Your task to perform on an android device: Go to Reddit.com Image 0: 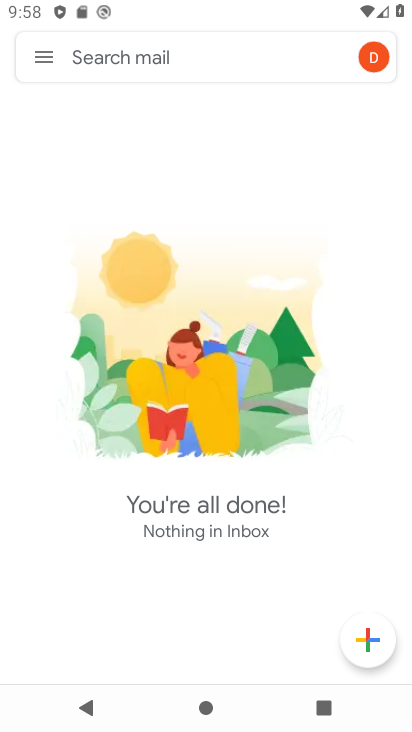
Step 0: press home button
Your task to perform on an android device: Go to Reddit.com Image 1: 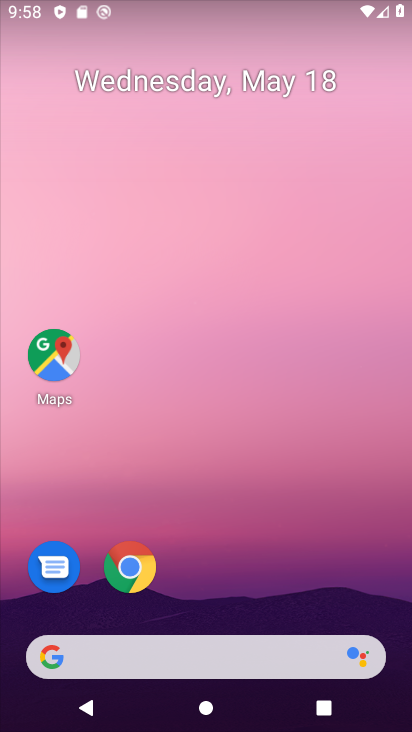
Step 1: drag from (221, 558) to (245, 142)
Your task to perform on an android device: Go to Reddit.com Image 2: 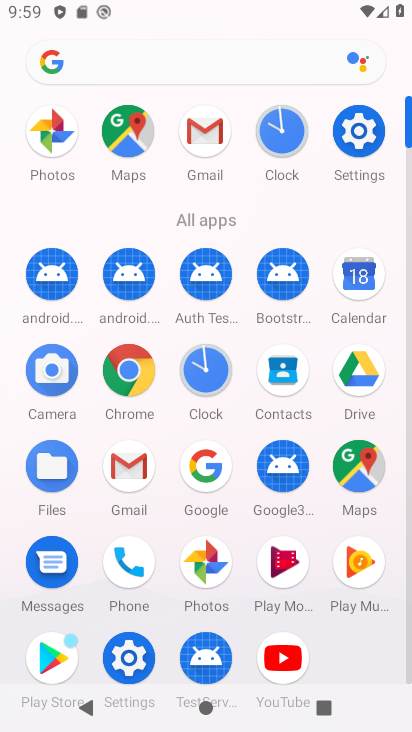
Step 2: click (216, 477)
Your task to perform on an android device: Go to Reddit.com Image 3: 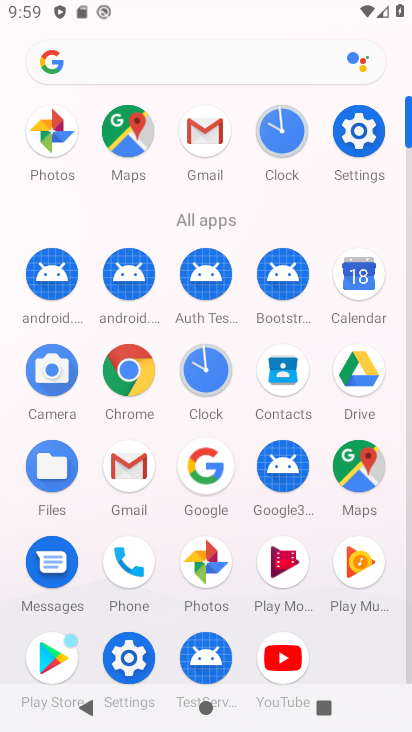
Step 3: click (210, 484)
Your task to perform on an android device: Go to Reddit.com Image 4: 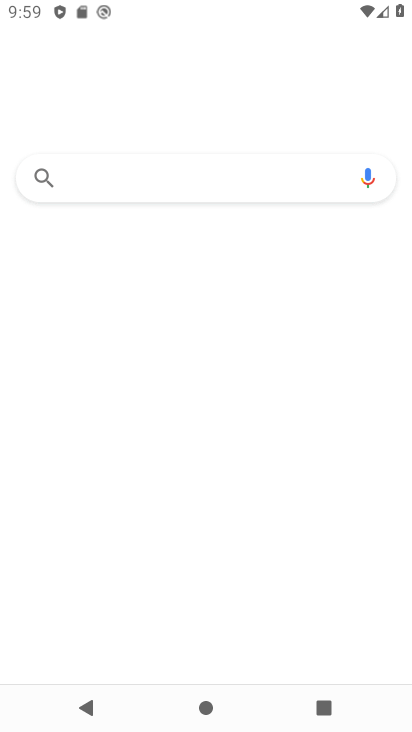
Step 4: click (100, 172)
Your task to perform on an android device: Go to Reddit.com Image 5: 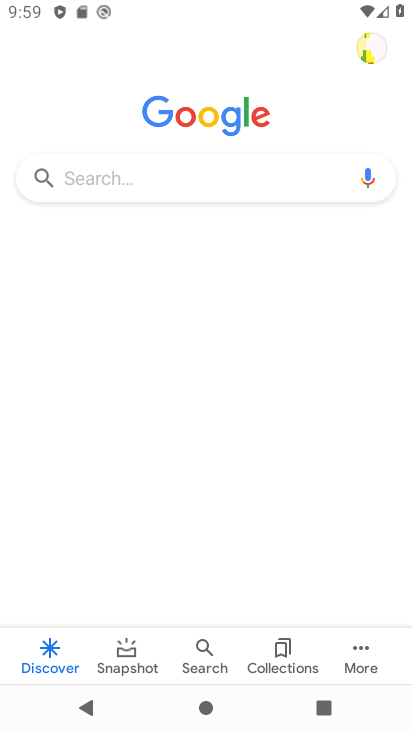
Step 5: click (123, 179)
Your task to perform on an android device: Go to Reddit.com Image 6: 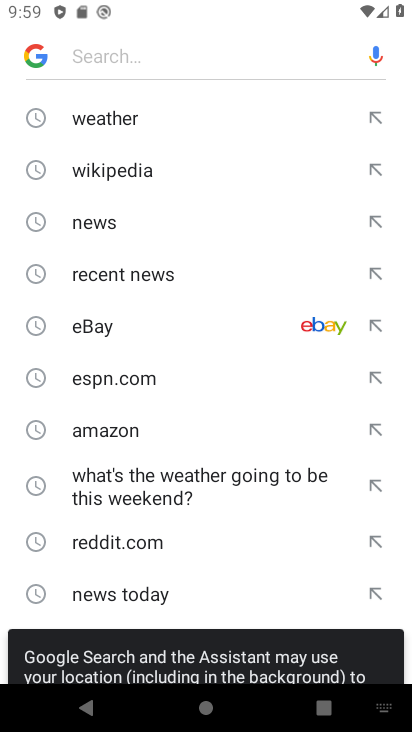
Step 6: drag from (140, 599) to (155, 463)
Your task to perform on an android device: Go to Reddit.com Image 7: 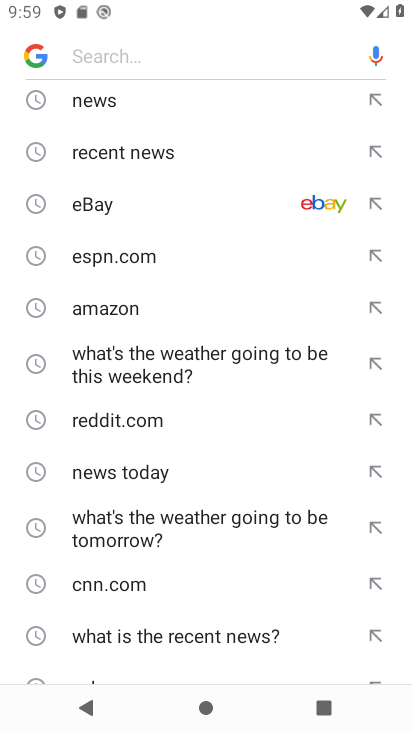
Step 7: click (120, 411)
Your task to perform on an android device: Go to Reddit.com Image 8: 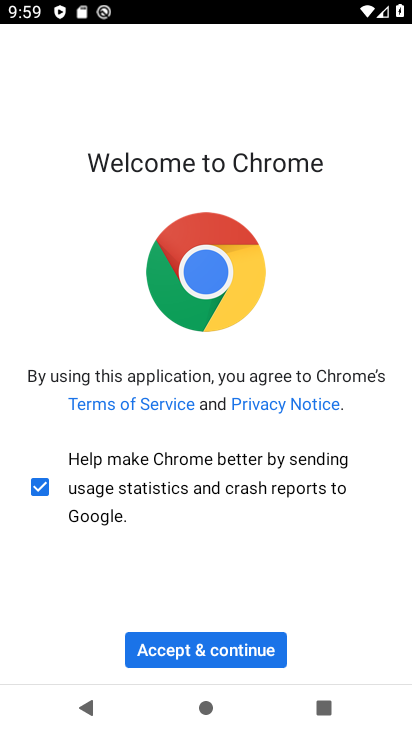
Step 8: click (214, 643)
Your task to perform on an android device: Go to Reddit.com Image 9: 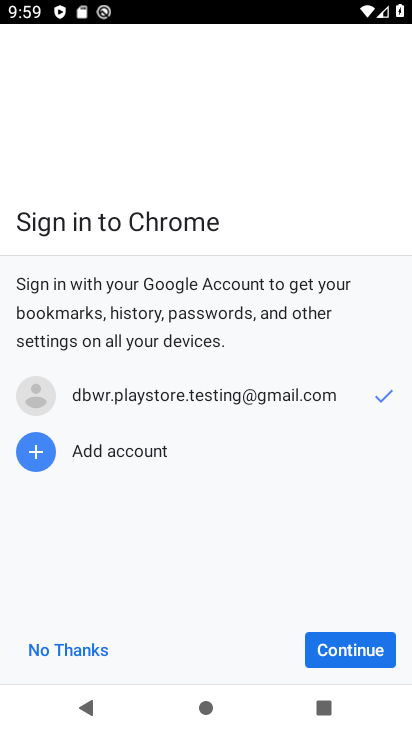
Step 9: click (336, 655)
Your task to perform on an android device: Go to Reddit.com Image 10: 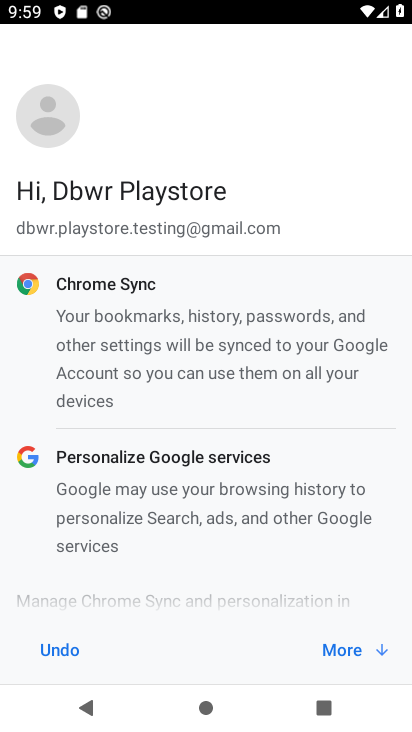
Step 10: click (336, 655)
Your task to perform on an android device: Go to Reddit.com Image 11: 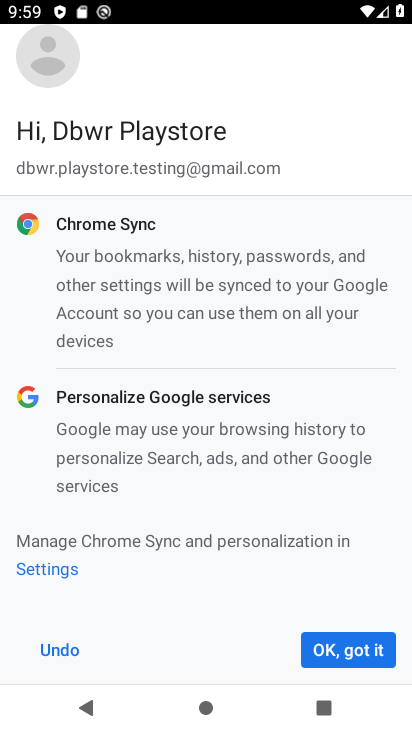
Step 11: click (336, 655)
Your task to perform on an android device: Go to Reddit.com Image 12: 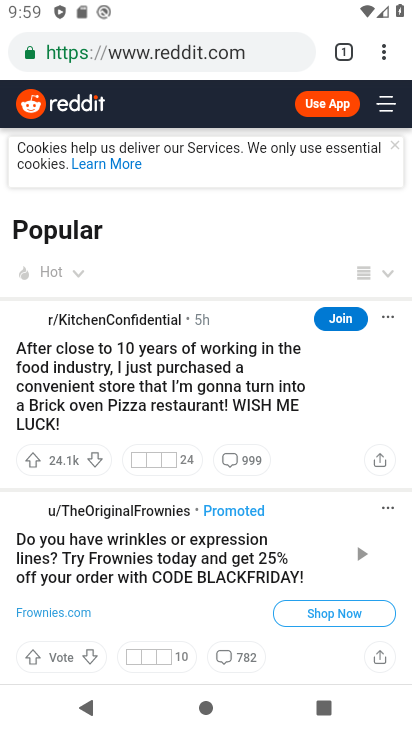
Step 12: task complete